Your task to perform on an android device: Search for pizza restaurants on Maps Image 0: 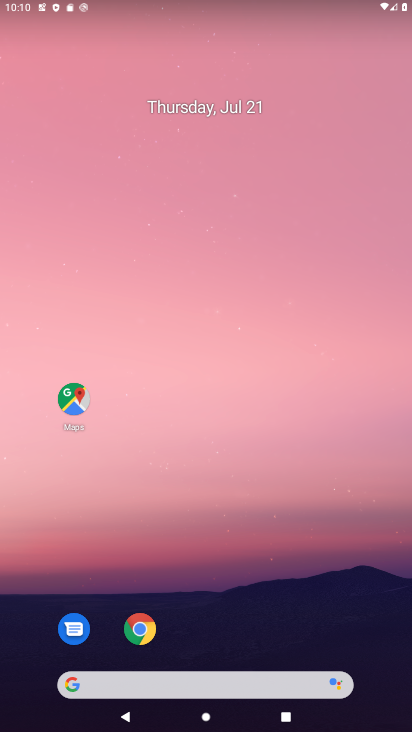
Step 0: drag from (237, 573) to (214, 3)
Your task to perform on an android device: Search for pizza restaurants on Maps Image 1: 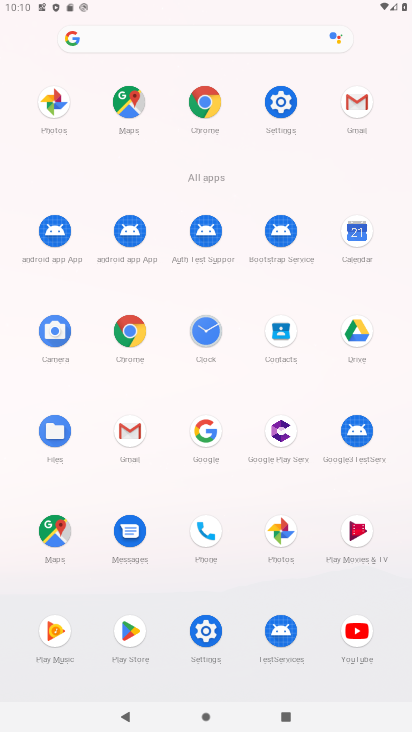
Step 1: click (62, 534)
Your task to perform on an android device: Search for pizza restaurants on Maps Image 2: 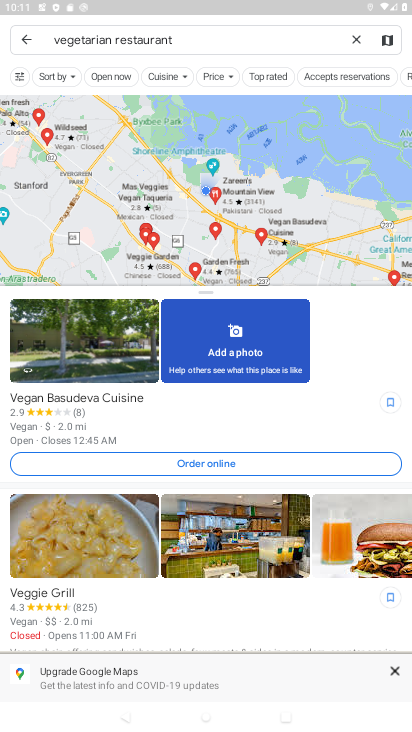
Step 2: click (356, 34)
Your task to perform on an android device: Search for pizza restaurants on Maps Image 3: 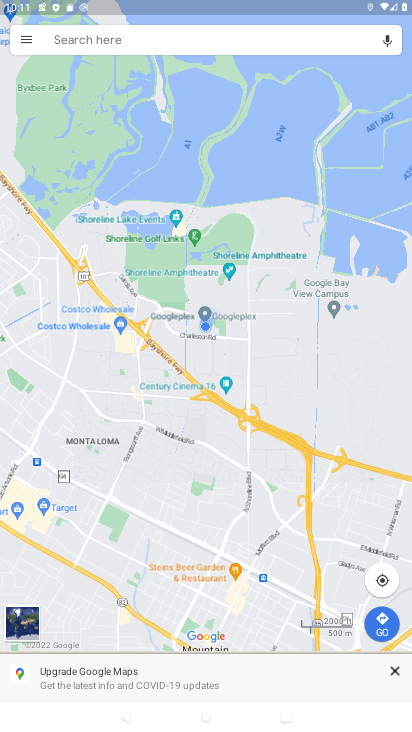
Step 3: click (310, 34)
Your task to perform on an android device: Search for pizza restaurants on Maps Image 4: 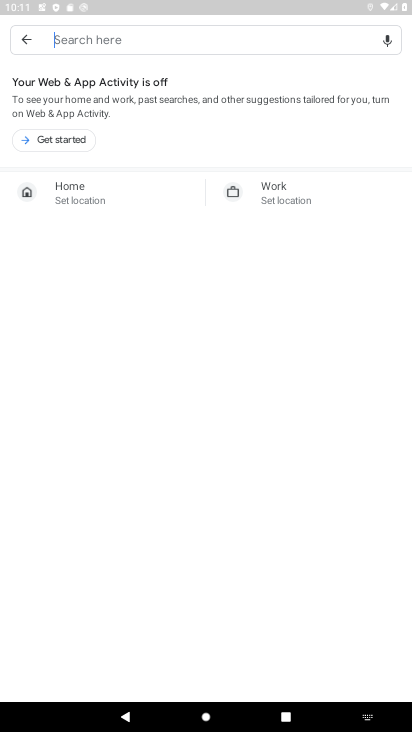
Step 4: type "pizza restaurants"
Your task to perform on an android device: Search for pizza restaurants on Maps Image 5: 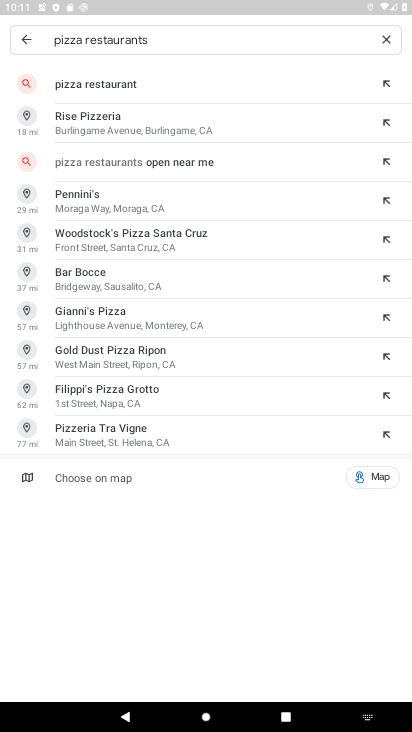
Step 5: click (97, 88)
Your task to perform on an android device: Search for pizza restaurants on Maps Image 6: 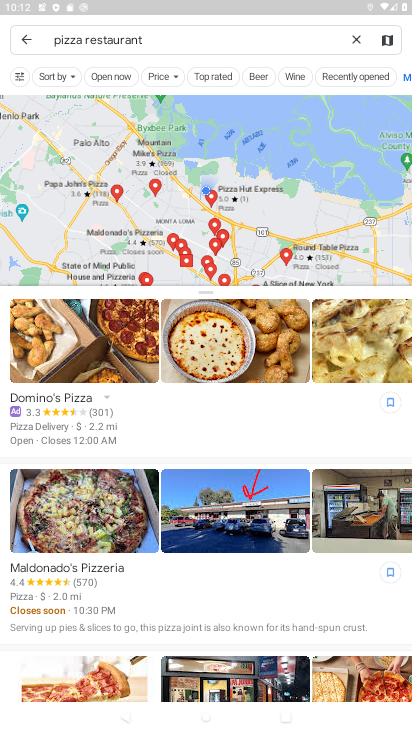
Step 6: task complete